Your task to perform on an android device: set the stopwatch Image 0: 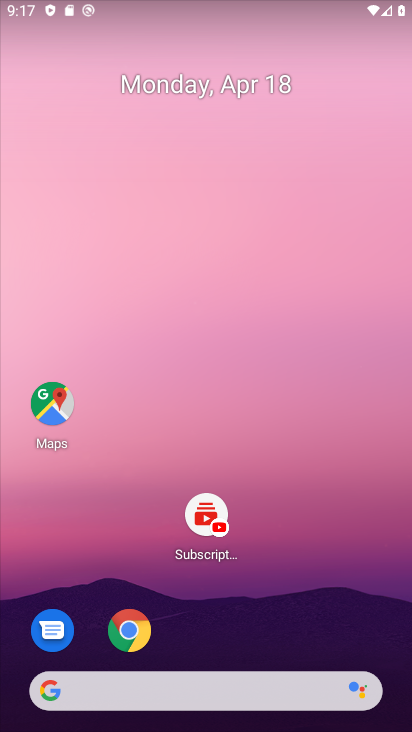
Step 0: drag from (217, 557) to (256, 168)
Your task to perform on an android device: set the stopwatch Image 1: 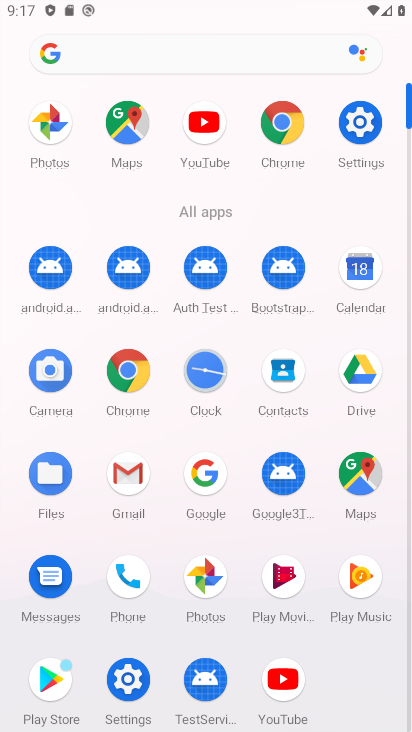
Step 1: click (210, 378)
Your task to perform on an android device: set the stopwatch Image 2: 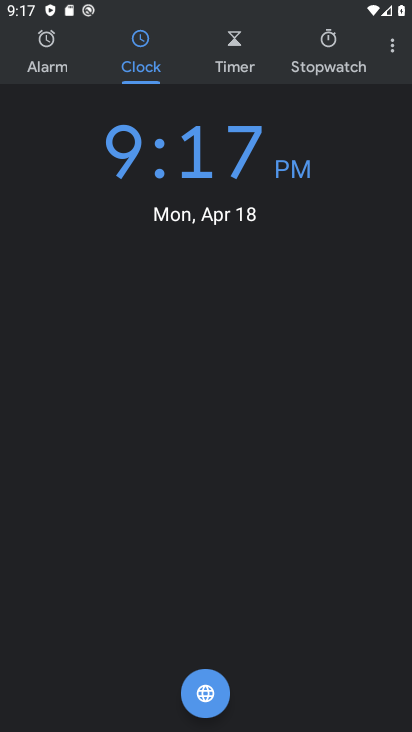
Step 2: click (313, 68)
Your task to perform on an android device: set the stopwatch Image 3: 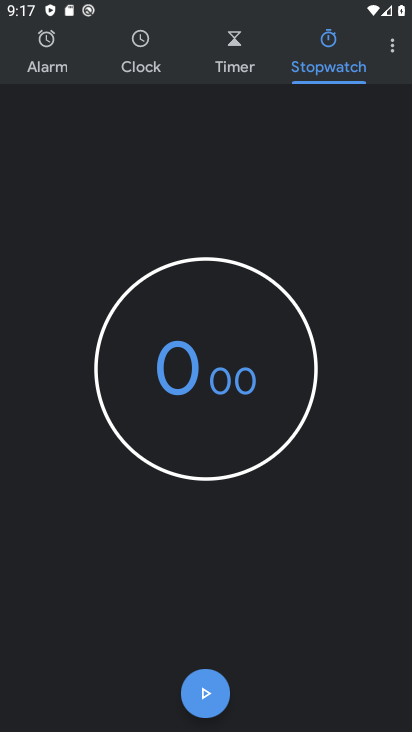
Step 3: click (202, 389)
Your task to perform on an android device: set the stopwatch Image 4: 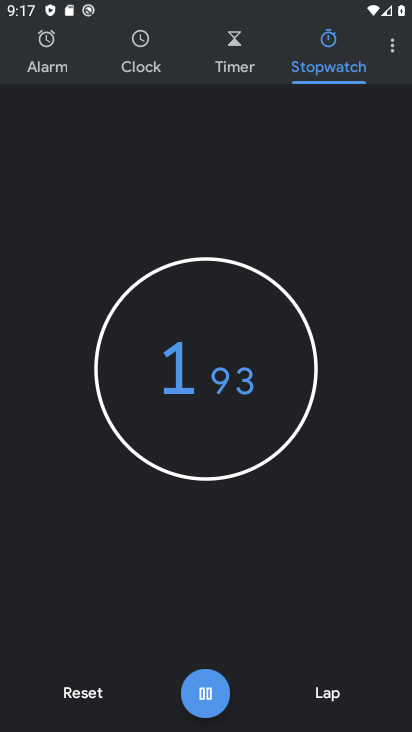
Step 4: task complete